Your task to perform on an android device: Open settings on Google Maps Image 0: 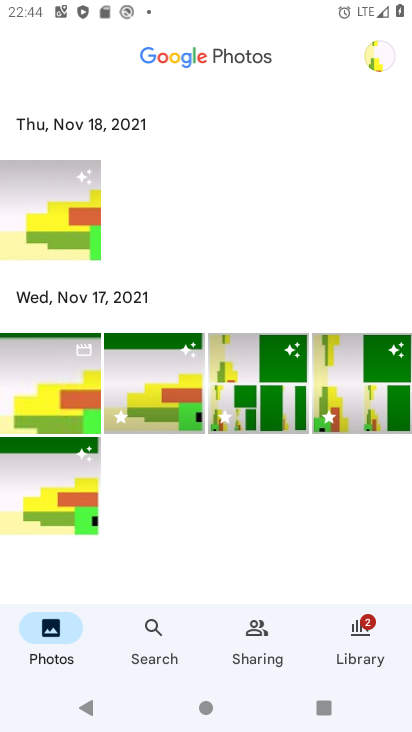
Step 0: press home button
Your task to perform on an android device: Open settings on Google Maps Image 1: 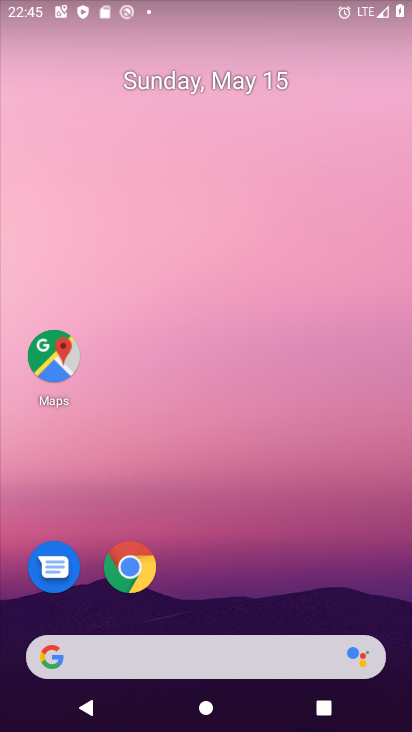
Step 1: click (61, 359)
Your task to perform on an android device: Open settings on Google Maps Image 2: 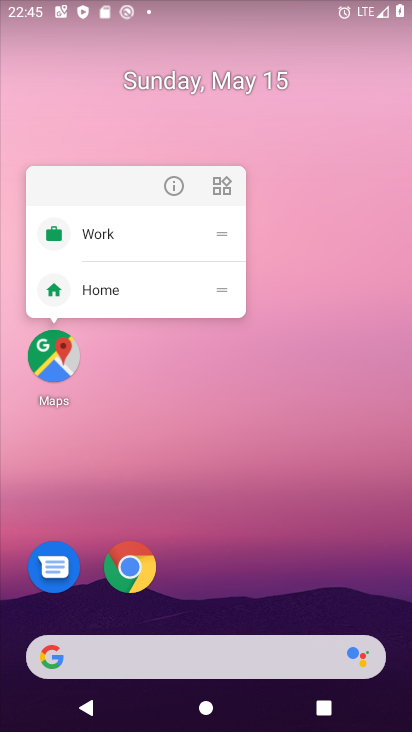
Step 2: click (61, 359)
Your task to perform on an android device: Open settings on Google Maps Image 3: 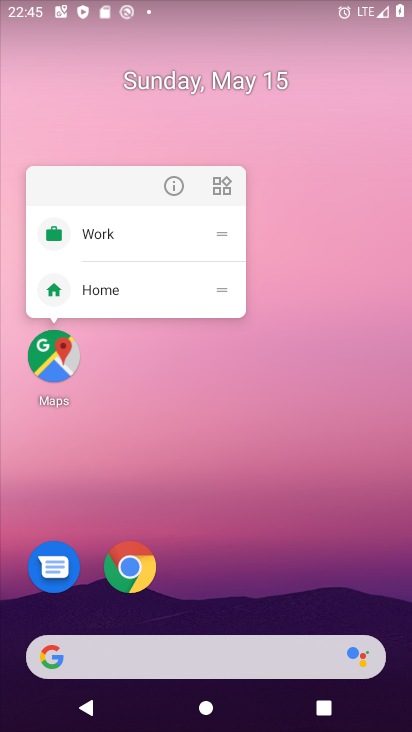
Step 3: click (61, 359)
Your task to perform on an android device: Open settings on Google Maps Image 4: 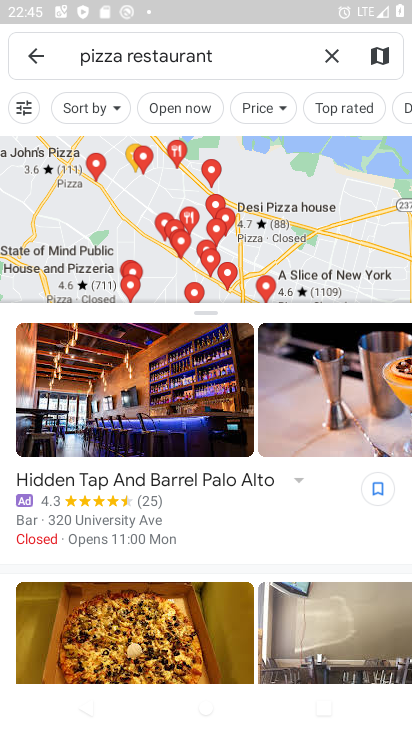
Step 4: click (332, 52)
Your task to perform on an android device: Open settings on Google Maps Image 5: 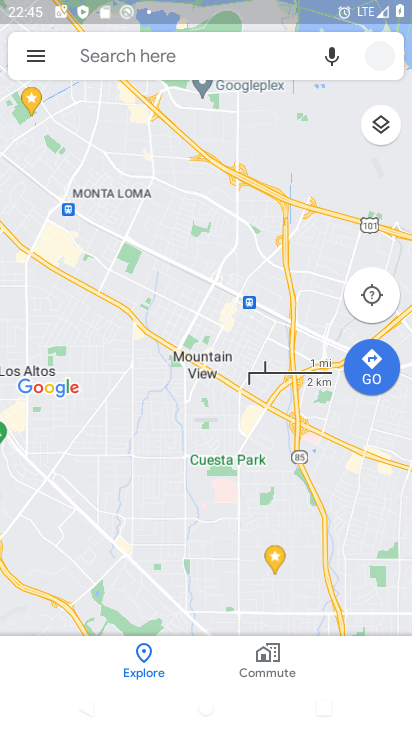
Step 5: click (27, 51)
Your task to perform on an android device: Open settings on Google Maps Image 6: 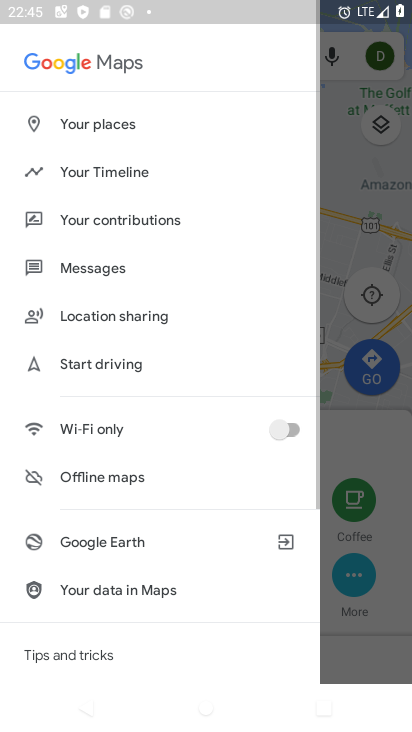
Step 6: drag from (183, 583) to (236, 36)
Your task to perform on an android device: Open settings on Google Maps Image 7: 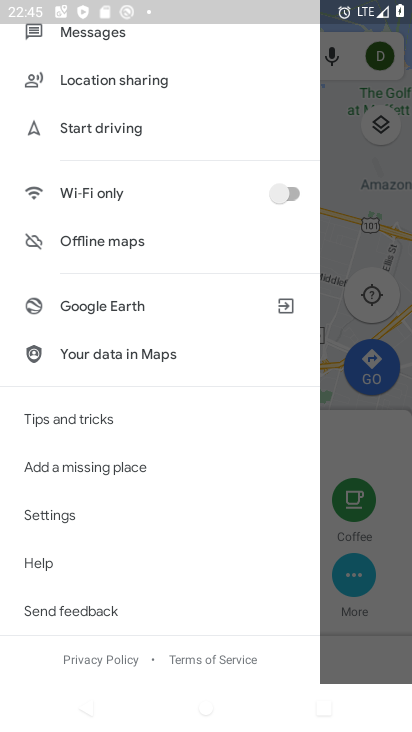
Step 7: click (103, 518)
Your task to perform on an android device: Open settings on Google Maps Image 8: 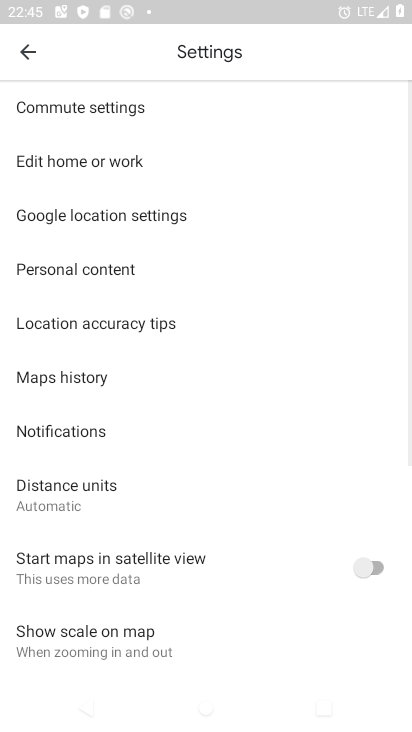
Step 8: task complete